Your task to perform on an android device: delete the emails in spam in the gmail app Image 0: 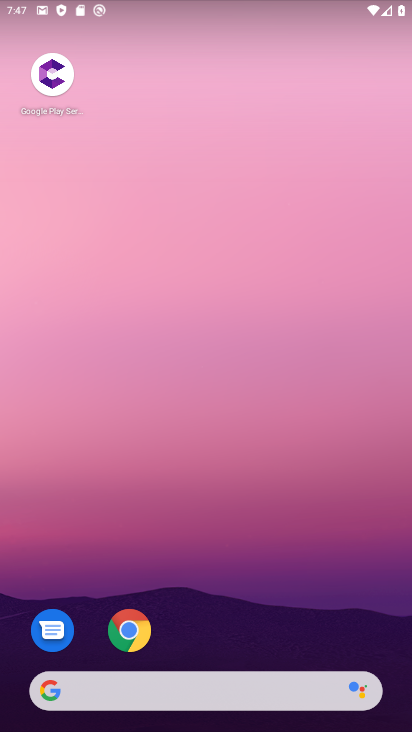
Step 0: drag from (277, 624) to (244, 87)
Your task to perform on an android device: delete the emails in spam in the gmail app Image 1: 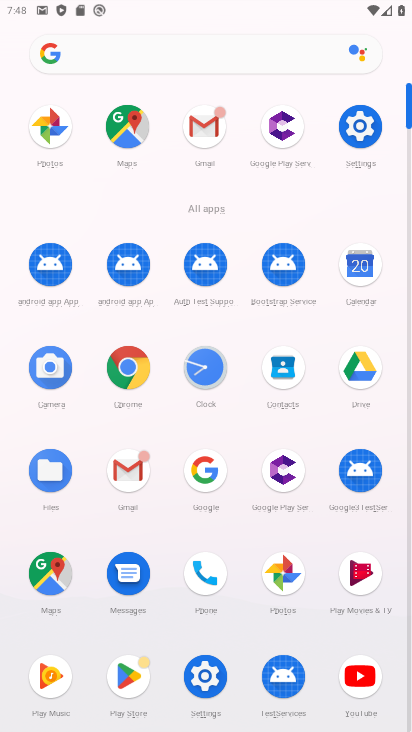
Step 1: click (195, 130)
Your task to perform on an android device: delete the emails in spam in the gmail app Image 2: 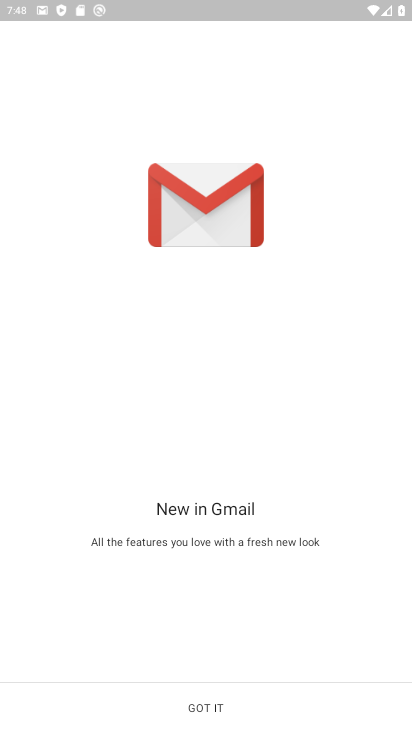
Step 2: click (169, 701)
Your task to perform on an android device: delete the emails in spam in the gmail app Image 3: 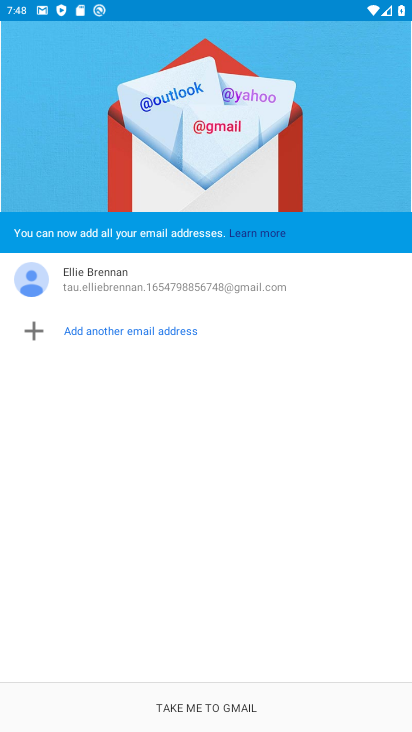
Step 3: click (169, 701)
Your task to perform on an android device: delete the emails in spam in the gmail app Image 4: 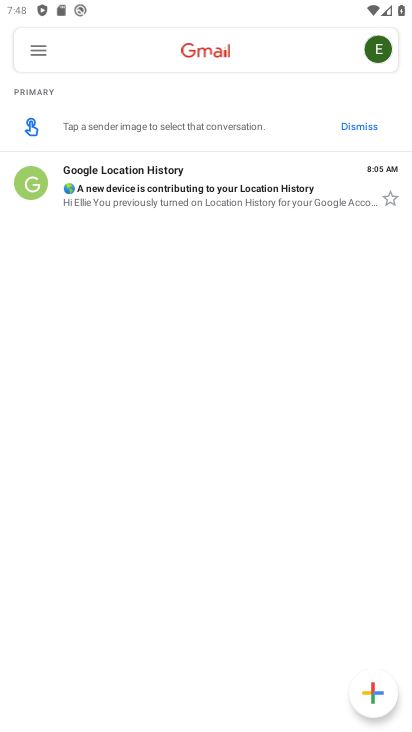
Step 4: click (27, 48)
Your task to perform on an android device: delete the emails in spam in the gmail app Image 5: 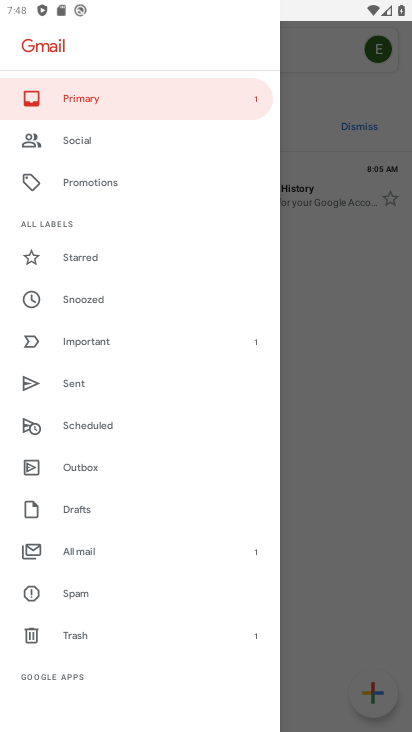
Step 5: click (135, 597)
Your task to perform on an android device: delete the emails in spam in the gmail app Image 6: 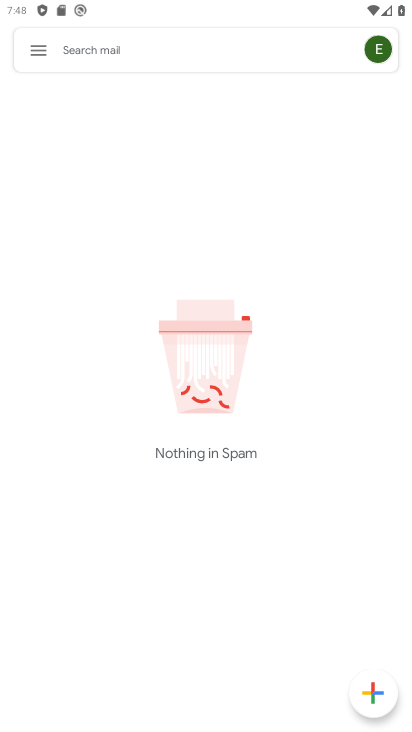
Step 6: task complete